Your task to perform on an android device: Go to Amazon Image 0: 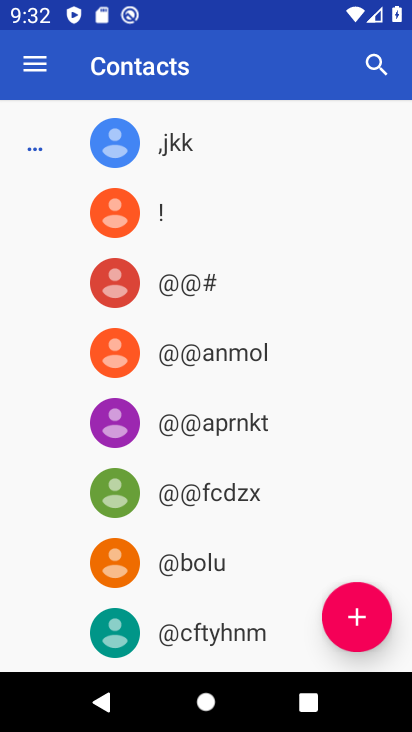
Step 0: press home button
Your task to perform on an android device: Go to Amazon Image 1: 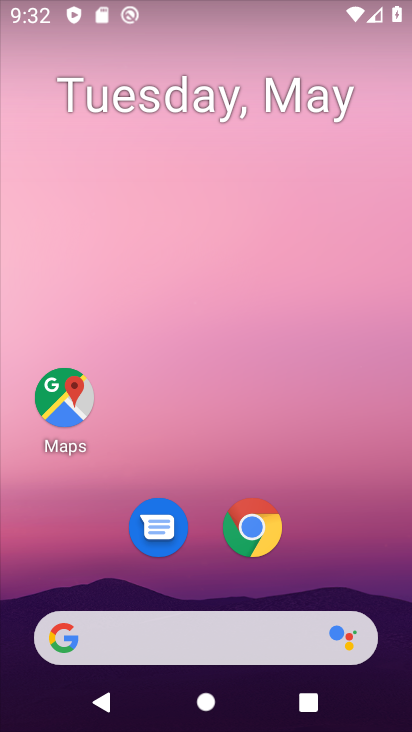
Step 1: click (267, 537)
Your task to perform on an android device: Go to Amazon Image 2: 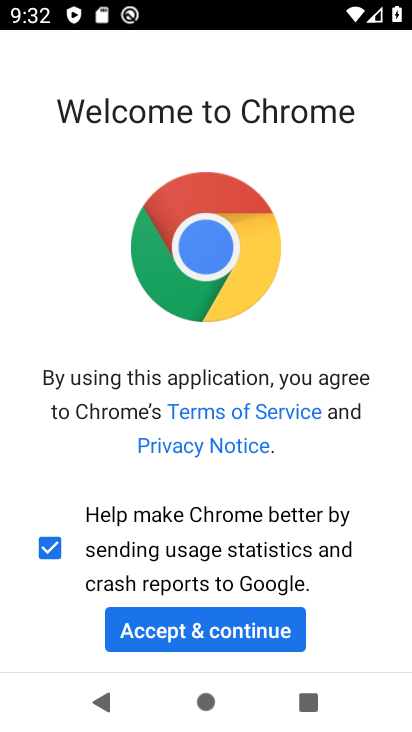
Step 2: click (207, 603)
Your task to perform on an android device: Go to Amazon Image 3: 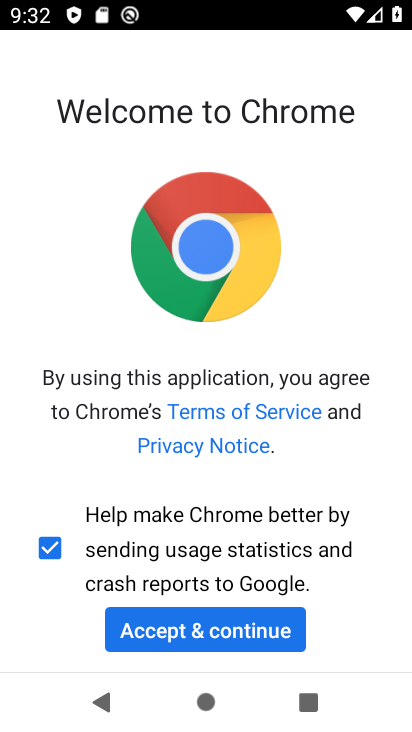
Step 3: click (195, 614)
Your task to perform on an android device: Go to Amazon Image 4: 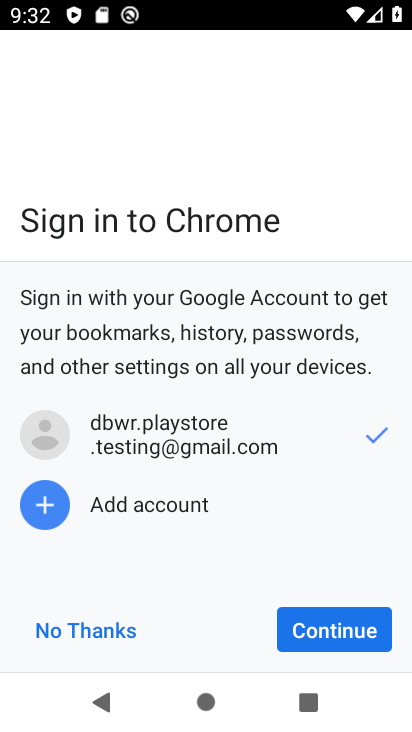
Step 4: click (348, 615)
Your task to perform on an android device: Go to Amazon Image 5: 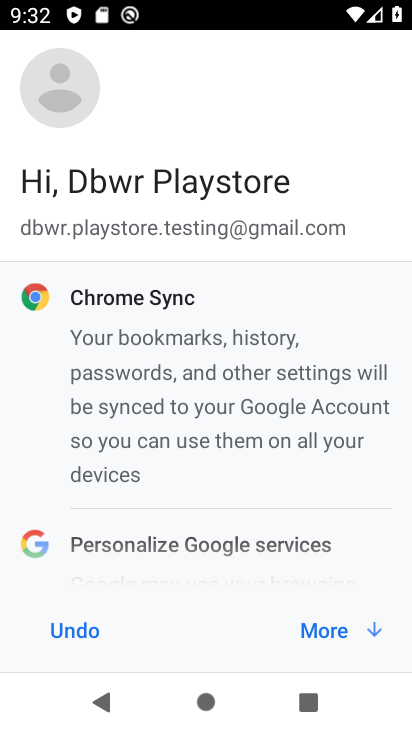
Step 5: click (336, 624)
Your task to perform on an android device: Go to Amazon Image 6: 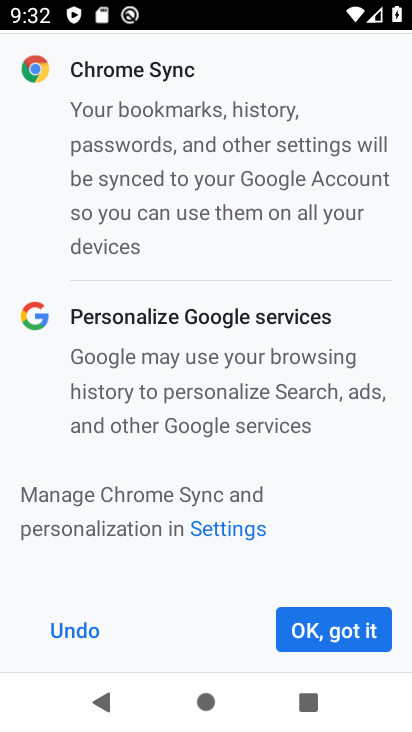
Step 6: click (336, 624)
Your task to perform on an android device: Go to Amazon Image 7: 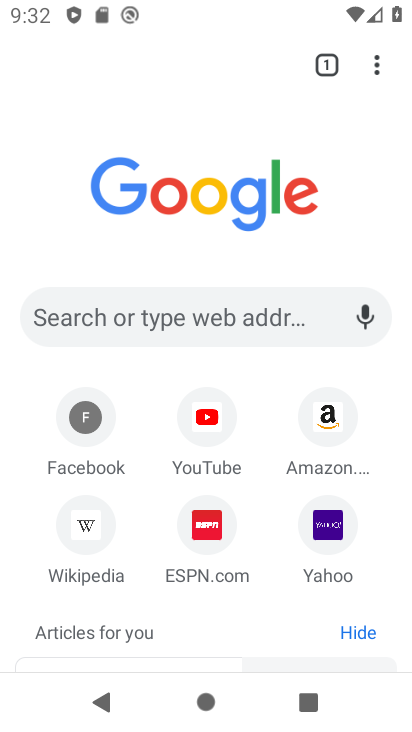
Step 7: click (333, 438)
Your task to perform on an android device: Go to Amazon Image 8: 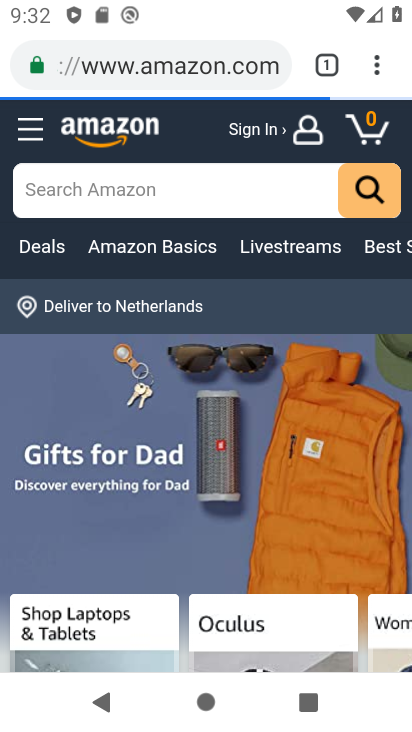
Step 8: task complete